Your task to perform on an android device: turn on wifi Image 0: 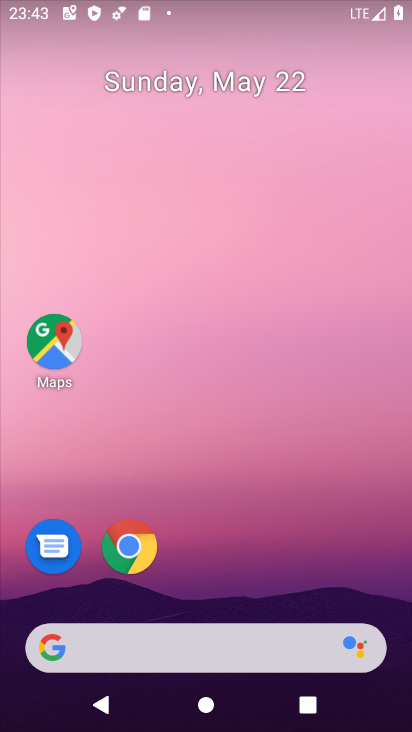
Step 0: drag from (191, 579) to (250, 60)
Your task to perform on an android device: turn on wifi Image 1: 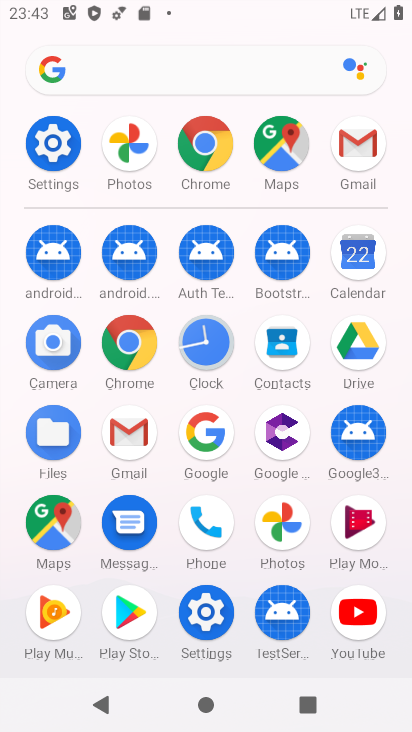
Step 1: click (49, 151)
Your task to perform on an android device: turn on wifi Image 2: 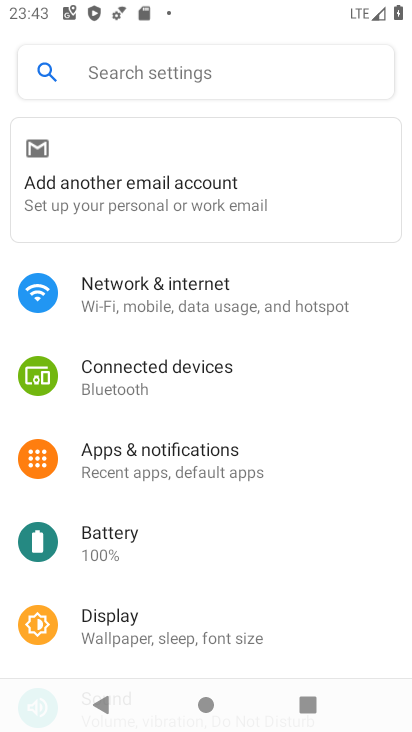
Step 2: click (137, 311)
Your task to perform on an android device: turn on wifi Image 3: 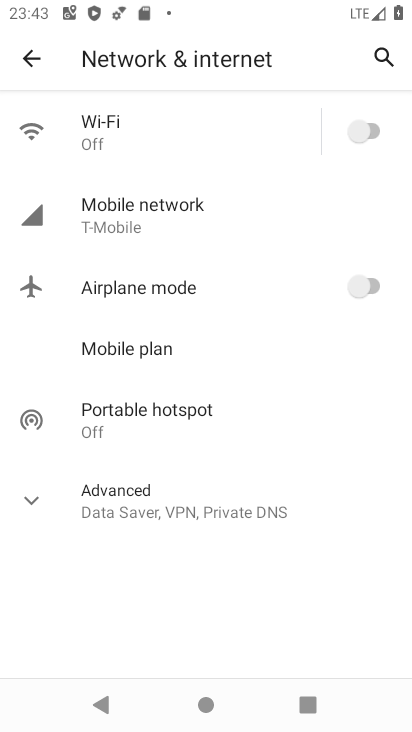
Step 3: click (168, 146)
Your task to perform on an android device: turn on wifi Image 4: 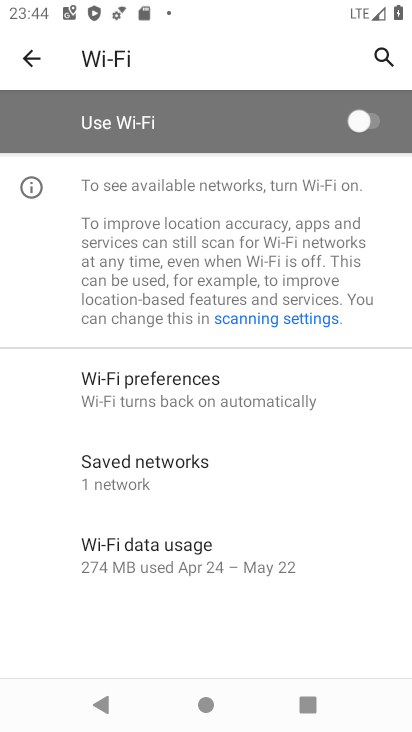
Step 4: click (343, 120)
Your task to perform on an android device: turn on wifi Image 5: 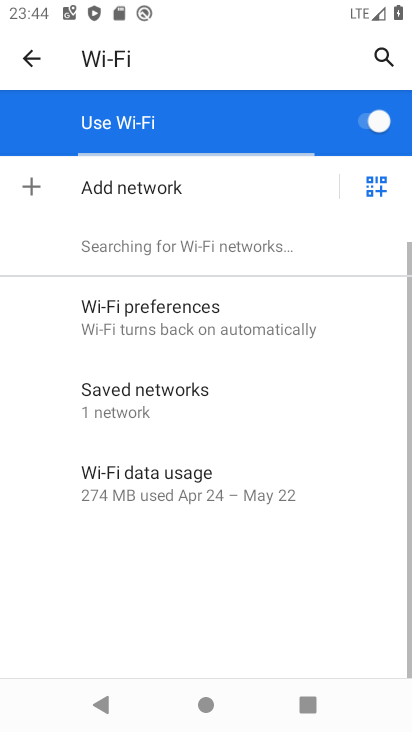
Step 5: task complete